Your task to perform on an android device: What's the weather going to be tomorrow? Image 0: 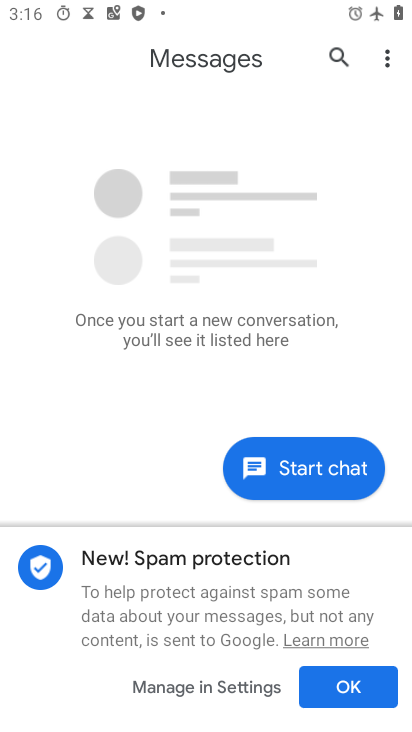
Step 0: press back button
Your task to perform on an android device: What's the weather going to be tomorrow? Image 1: 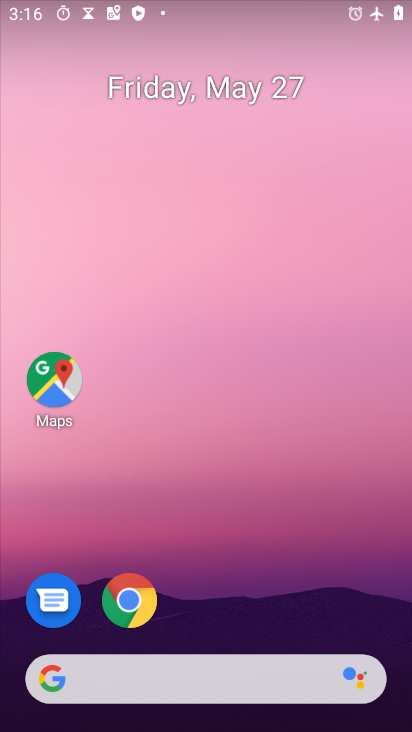
Step 1: drag from (228, 608) to (195, 14)
Your task to perform on an android device: What's the weather going to be tomorrow? Image 2: 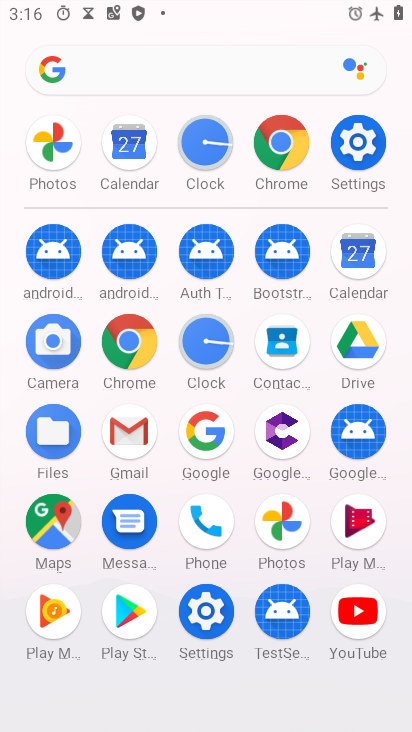
Step 2: drag from (11, 560) to (23, 212)
Your task to perform on an android device: What's the weather going to be tomorrow? Image 3: 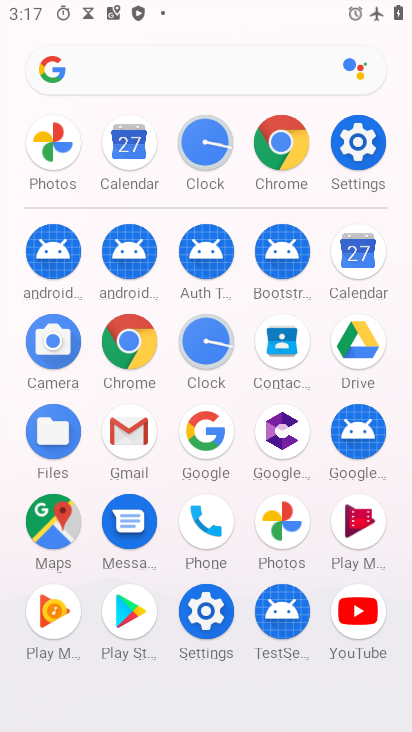
Step 3: click (129, 339)
Your task to perform on an android device: What's the weather going to be tomorrow? Image 4: 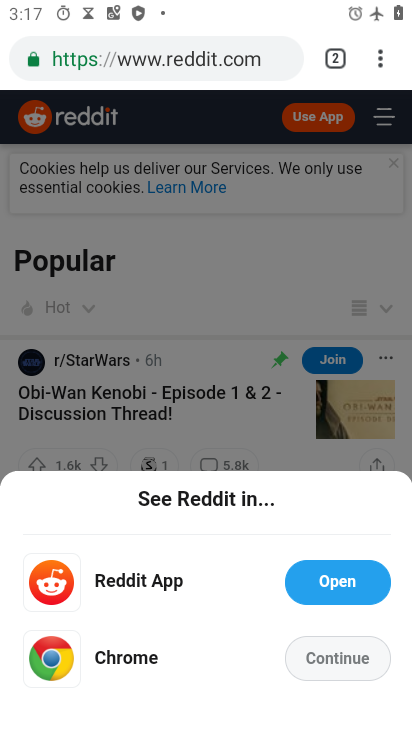
Step 4: click (179, 55)
Your task to perform on an android device: What's the weather going to be tomorrow? Image 5: 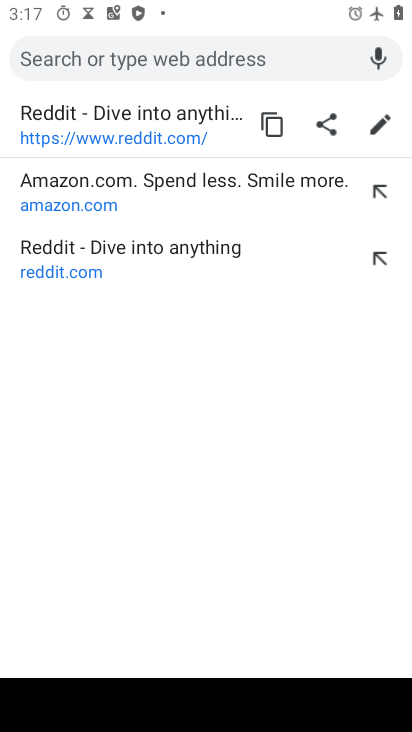
Step 5: type "What's the weather going to be tomorrow?"
Your task to perform on an android device: What's the weather going to be tomorrow? Image 6: 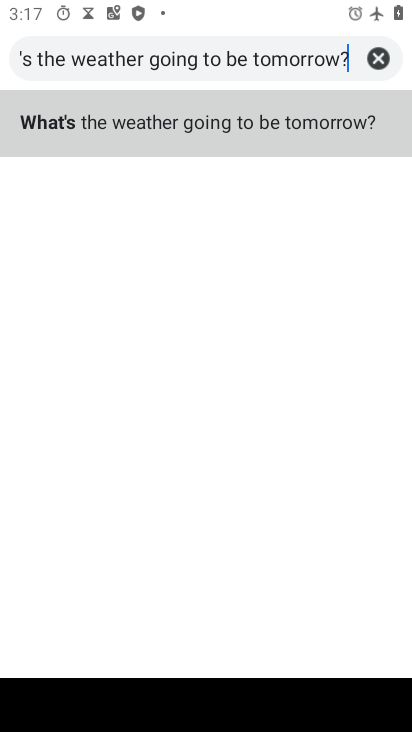
Step 6: type ""
Your task to perform on an android device: What's the weather going to be tomorrow? Image 7: 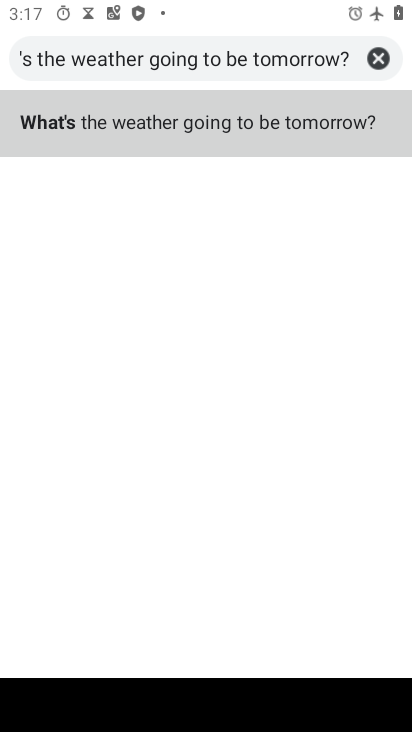
Step 7: click (170, 109)
Your task to perform on an android device: What's the weather going to be tomorrow? Image 8: 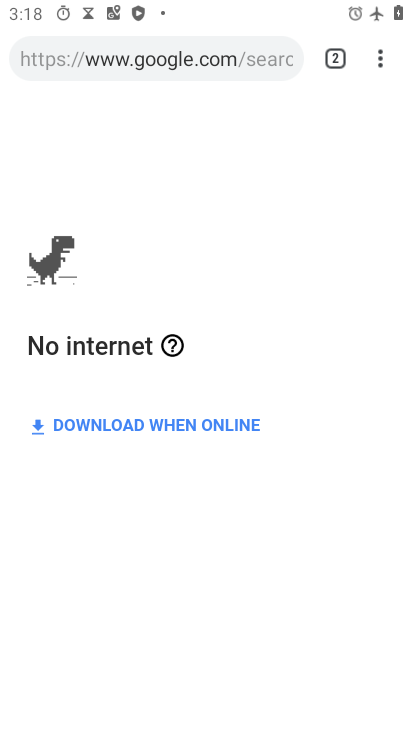
Step 8: task complete